Your task to perform on an android device: add a contact in the contacts app Image 0: 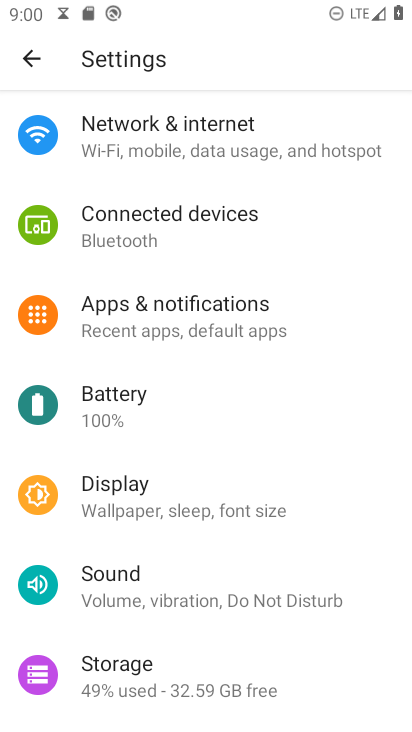
Step 0: press home button
Your task to perform on an android device: add a contact in the contacts app Image 1: 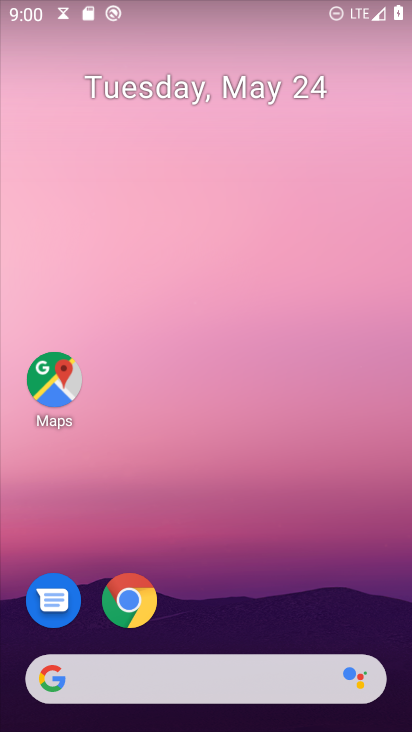
Step 1: drag from (210, 588) to (295, 76)
Your task to perform on an android device: add a contact in the contacts app Image 2: 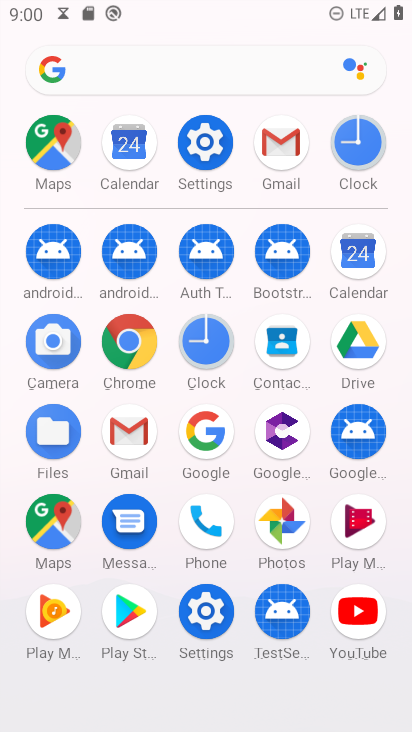
Step 2: click (288, 349)
Your task to perform on an android device: add a contact in the contacts app Image 3: 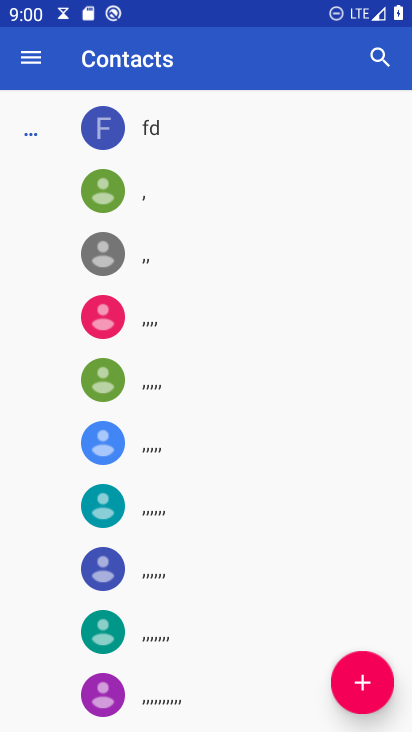
Step 3: click (361, 674)
Your task to perform on an android device: add a contact in the contacts app Image 4: 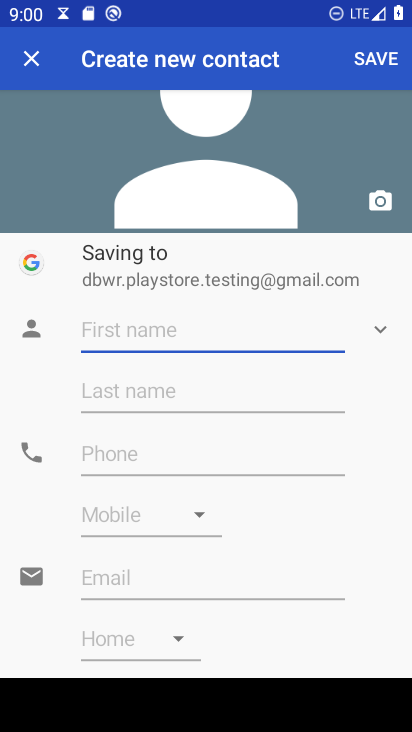
Step 4: click (136, 316)
Your task to perform on an android device: add a contact in the contacts app Image 5: 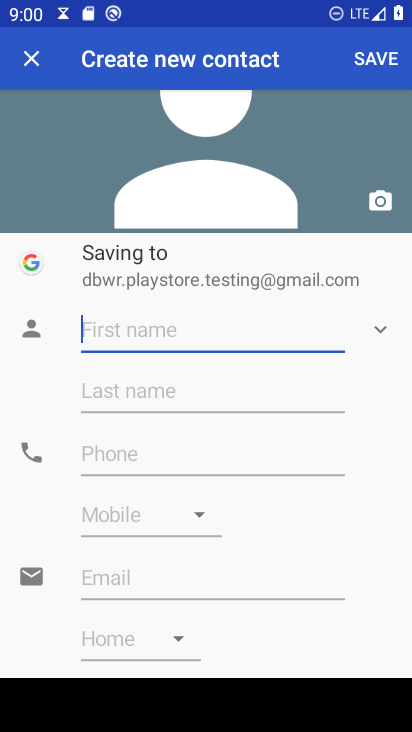
Step 5: type "dfbdfb"
Your task to perform on an android device: add a contact in the contacts app Image 6: 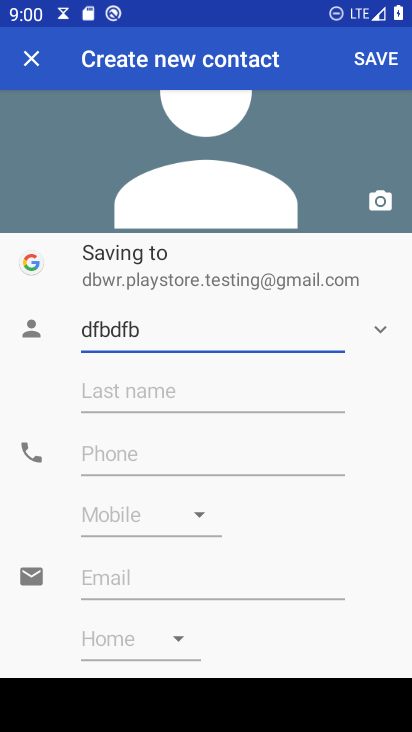
Step 6: click (110, 451)
Your task to perform on an android device: add a contact in the contacts app Image 7: 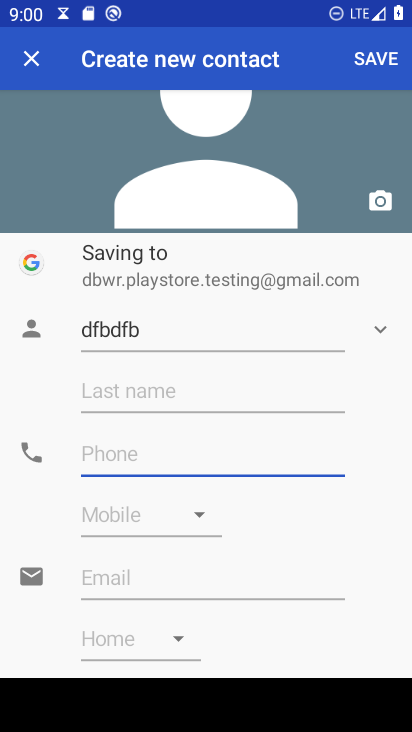
Step 7: type "65656"
Your task to perform on an android device: add a contact in the contacts app Image 8: 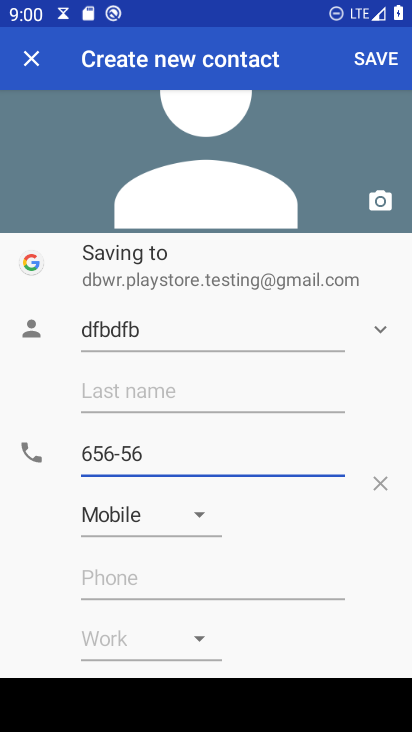
Step 8: click (382, 59)
Your task to perform on an android device: add a contact in the contacts app Image 9: 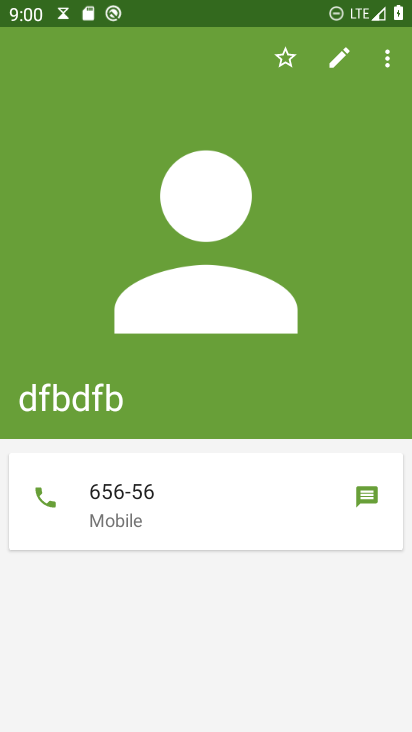
Step 9: task complete